Your task to perform on an android device: set an alarm Image 0: 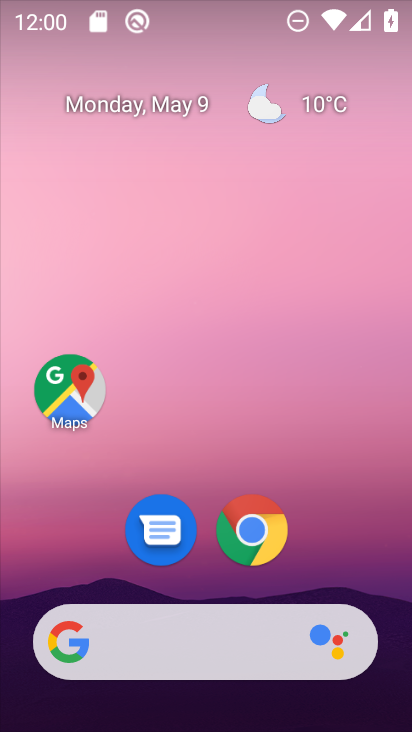
Step 0: drag from (196, 565) to (241, 217)
Your task to perform on an android device: set an alarm Image 1: 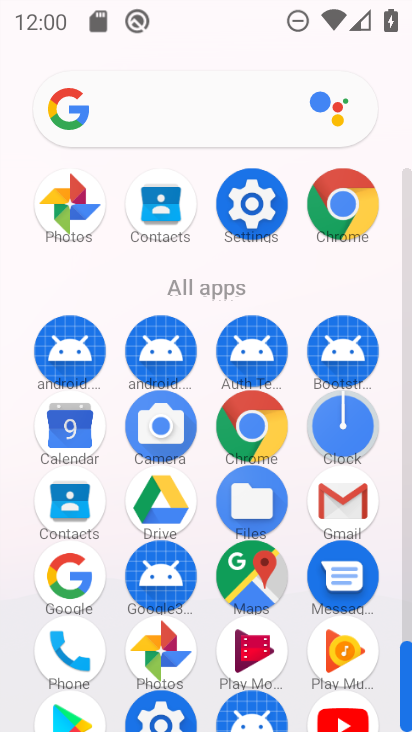
Step 1: click (345, 439)
Your task to perform on an android device: set an alarm Image 2: 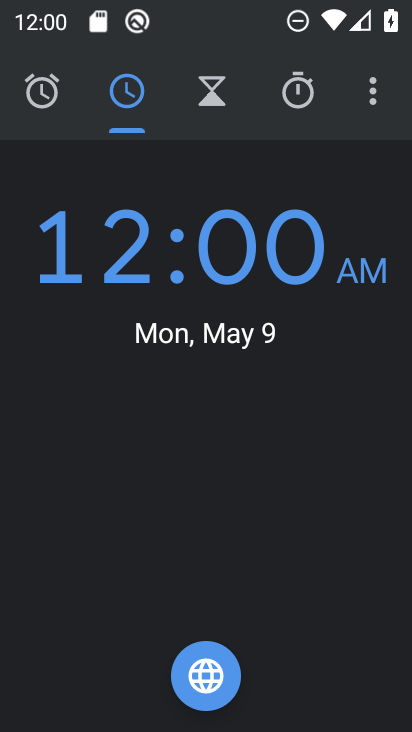
Step 2: click (64, 87)
Your task to perform on an android device: set an alarm Image 3: 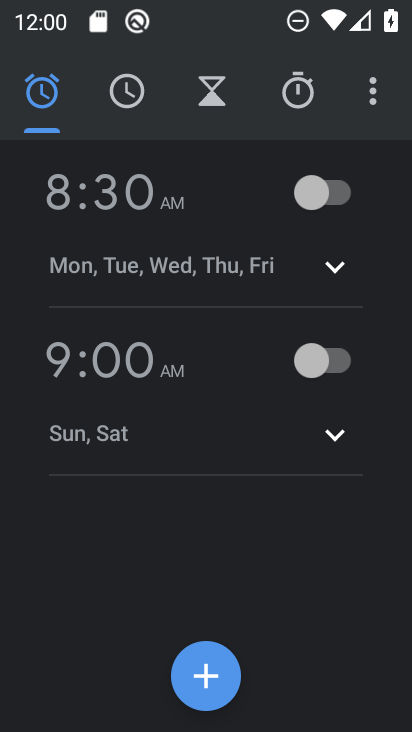
Step 3: click (340, 191)
Your task to perform on an android device: set an alarm Image 4: 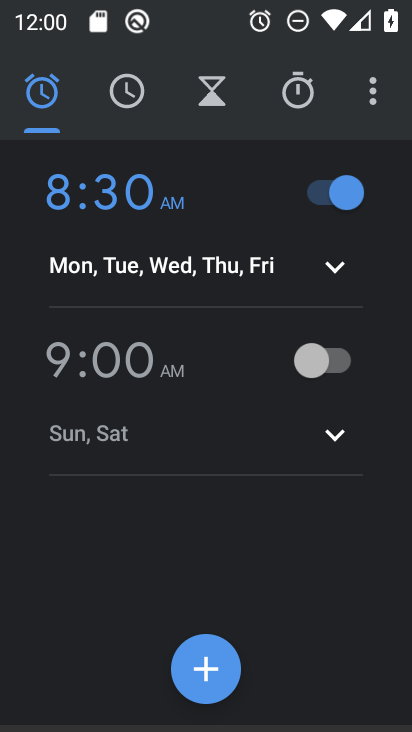
Step 4: task complete